Your task to perform on an android device: Go to Android settings Image 0: 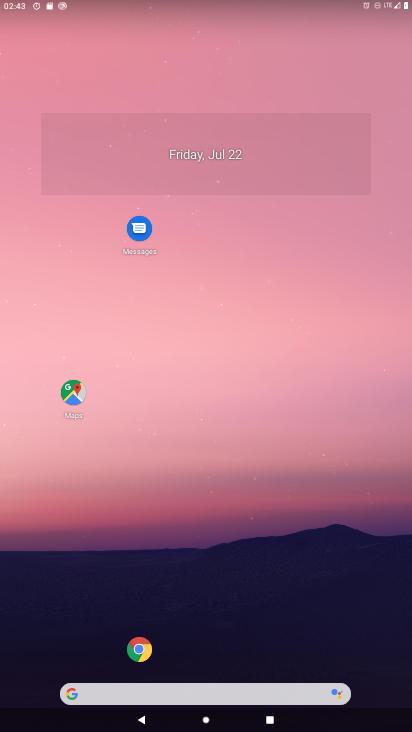
Step 0: click (404, 214)
Your task to perform on an android device: Go to Android settings Image 1: 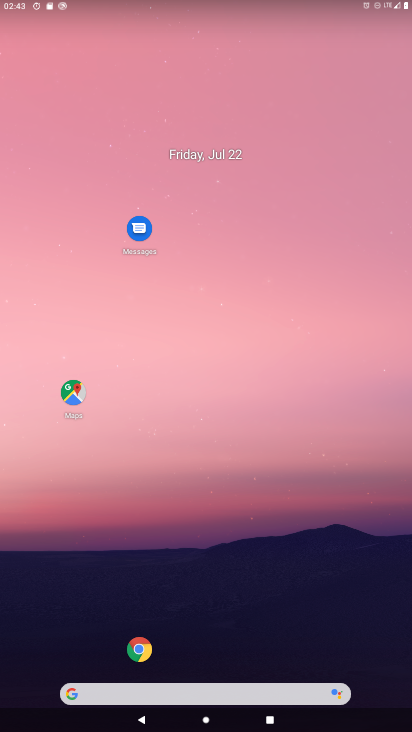
Step 1: drag from (186, 30) to (81, 24)
Your task to perform on an android device: Go to Android settings Image 2: 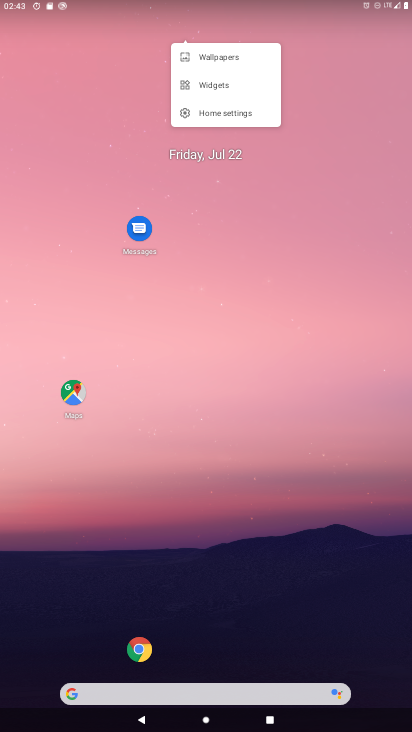
Step 2: drag from (378, 84) to (408, 62)
Your task to perform on an android device: Go to Android settings Image 3: 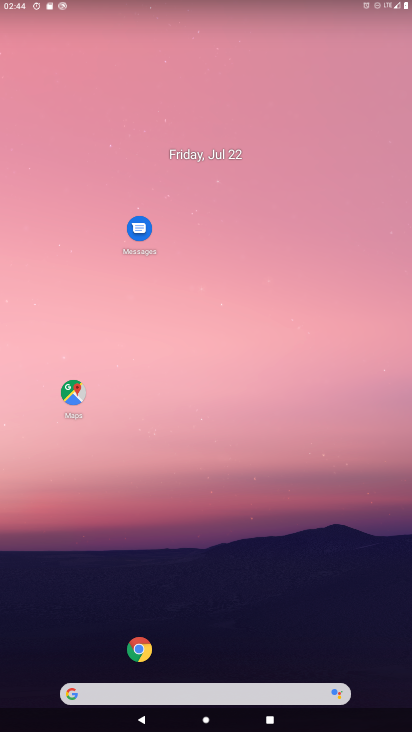
Step 3: drag from (19, 688) to (304, 217)
Your task to perform on an android device: Go to Android settings Image 4: 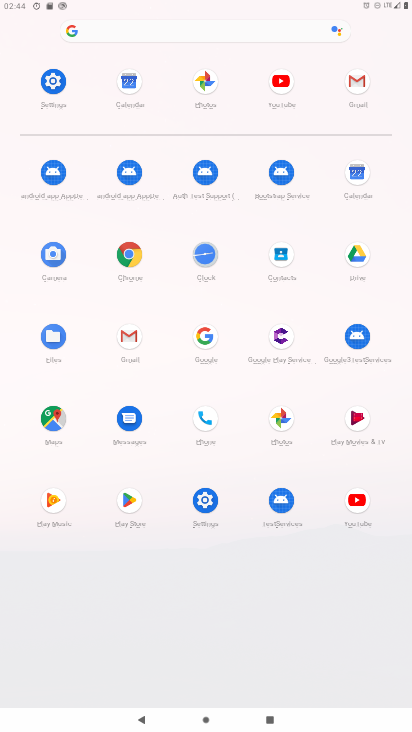
Step 4: click (210, 509)
Your task to perform on an android device: Go to Android settings Image 5: 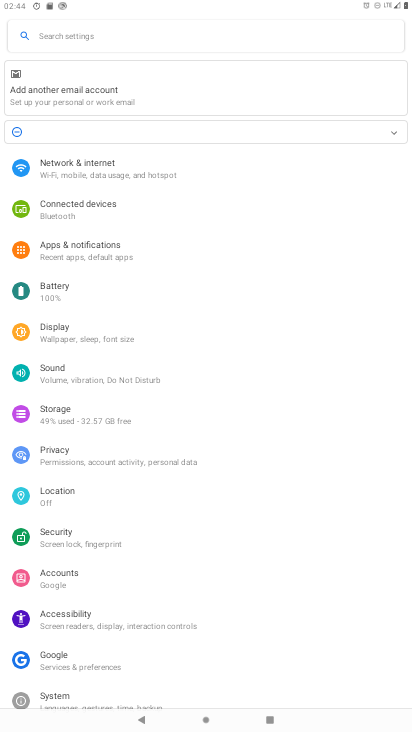
Step 5: click (198, 382)
Your task to perform on an android device: Go to Android settings Image 6: 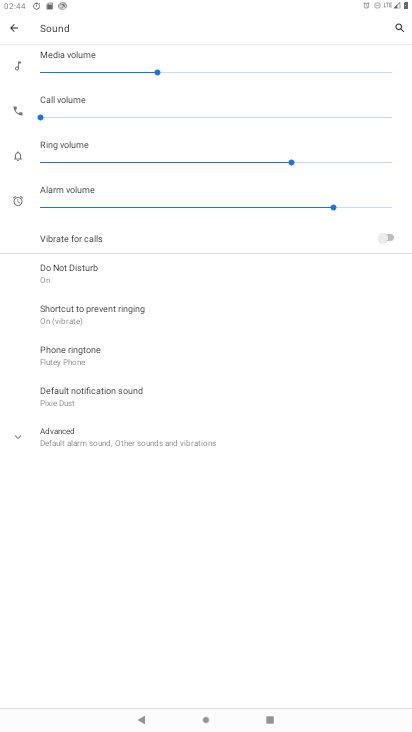
Step 6: click (5, 28)
Your task to perform on an android device: Go to Android settings Image 7: 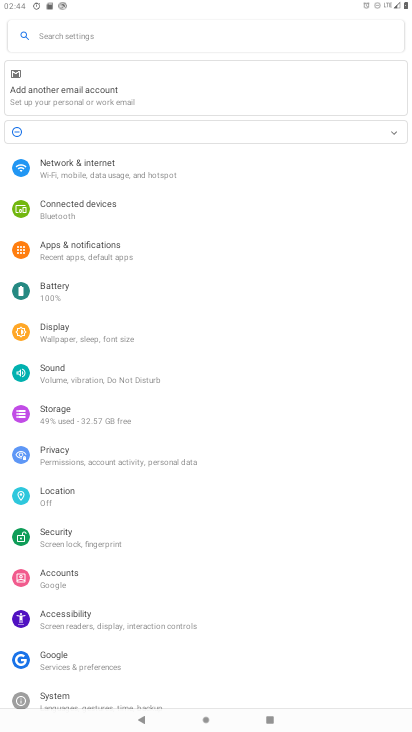
Step 7: drag from (171, 688) to (266, 224)
Your task to perform on an android device: Go to Android settings Image 8: 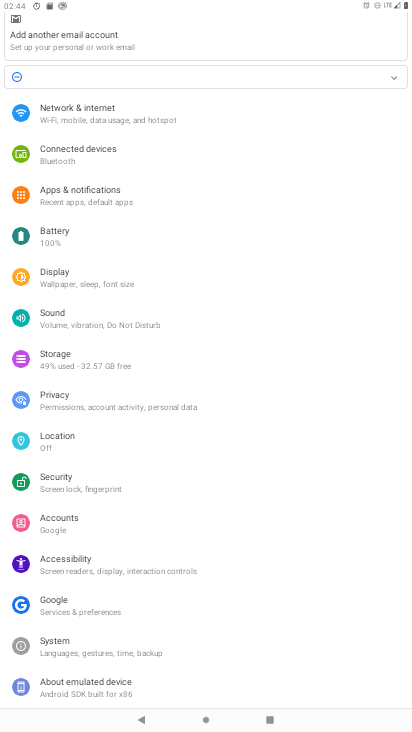
Step 8: click (80, 688)
Your task to perform on an android device: Go to Android settings Image 9: 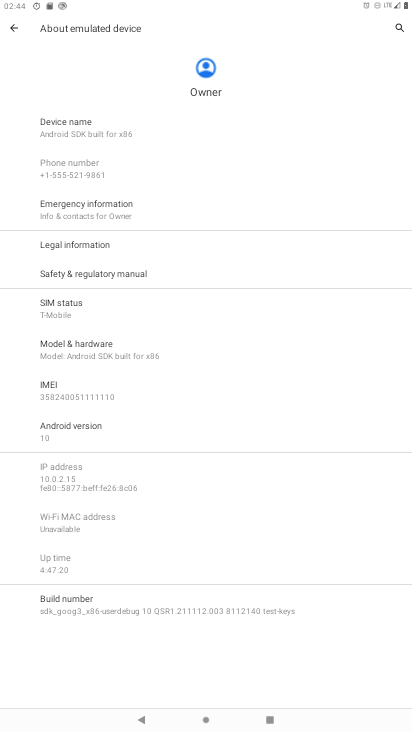
Step 9: click (92, 430)
Your task to perform on an android device: Go to Android settings Image 10: 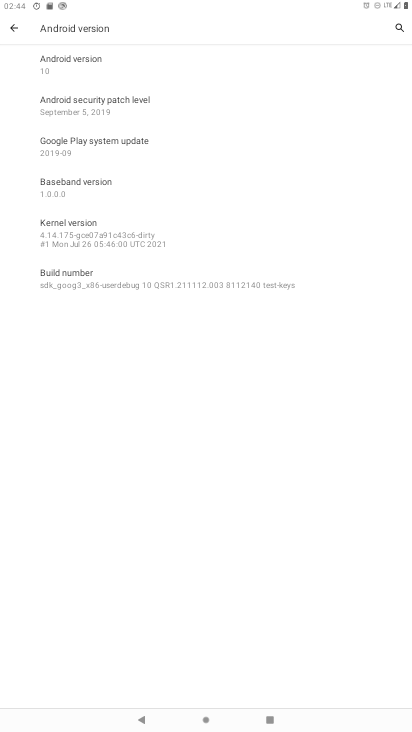
Step 10: task complete